Your task to perform on an android device: What's the weather today? Image 0: 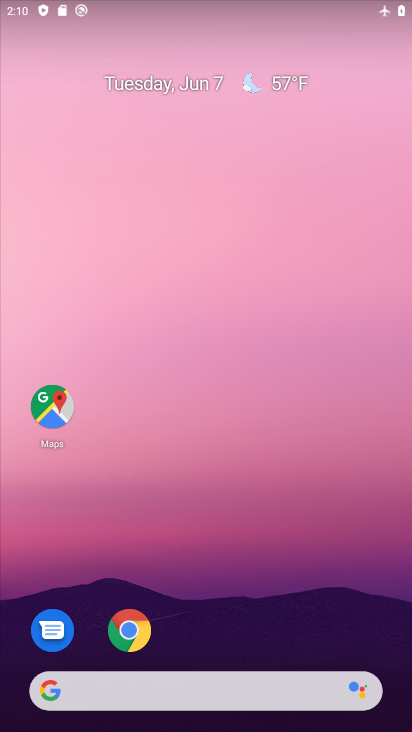
Step 0: click (286, 71)
Your task to perform on an android device: What's the weather today? Image 1: 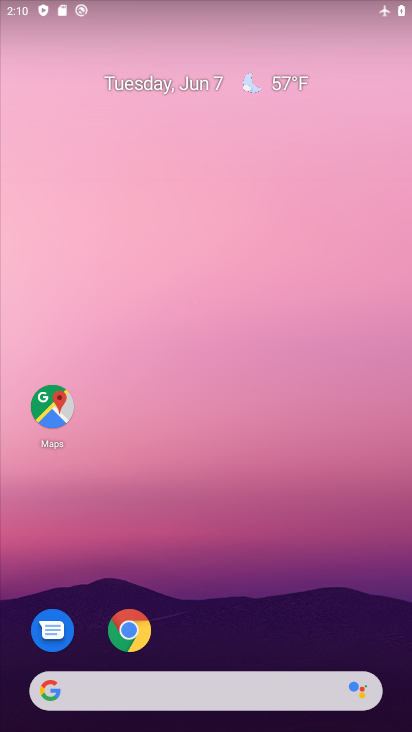
Step 1: click (281, 81)
Your task to perform on an android device: What's the weather today? Image 2: 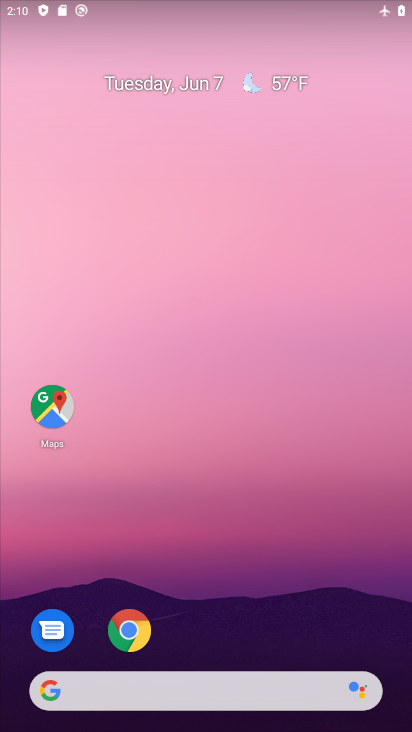
Step 2: click (281, 81)
Your task to perform on an android device: What's the weather today? Image 3: 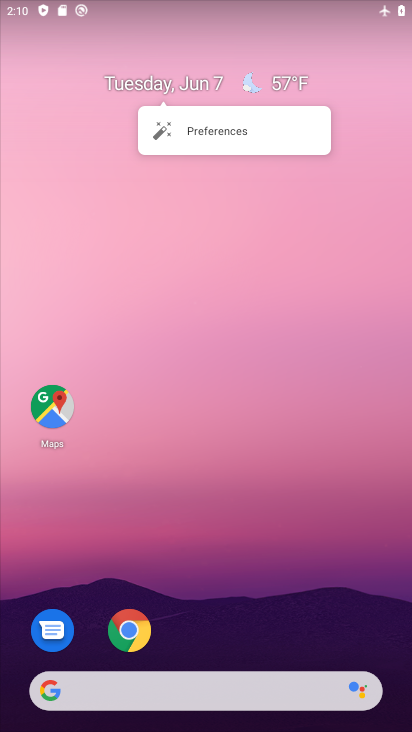
Step 3: click (248, 84)
Your task to perform on an android device: What's the weather today? Image 4: 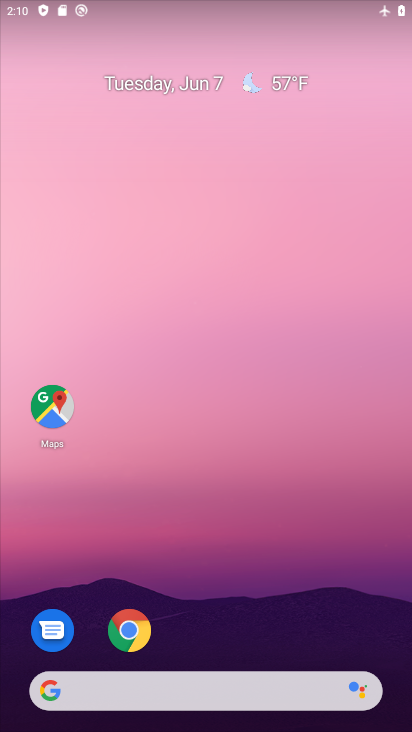
Step 4: click (274, 88)
Your task to perform on an android device: What's the weather today? Image 5: 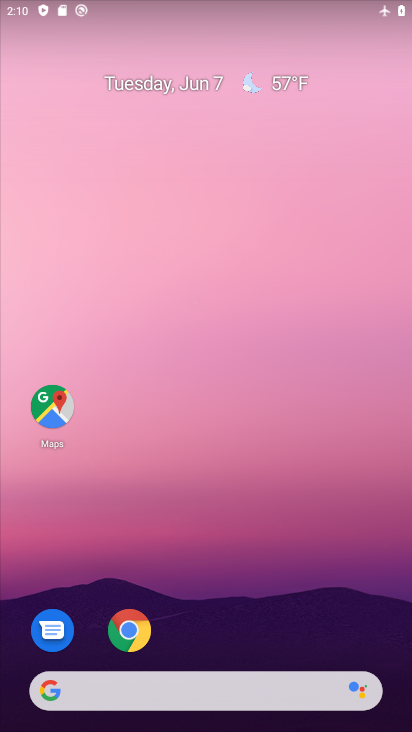
Step 5: click (305, 75)
Your task to perform on an android device: What's the weather today? Image 6: 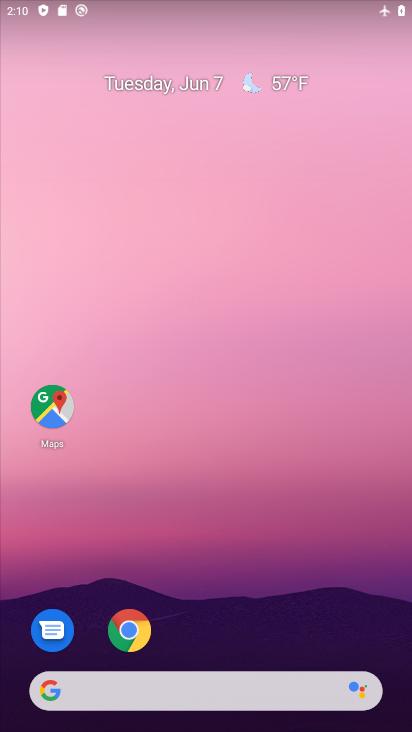
Step 6: click (305, 75)
Your task to perform on an android device: What's the weather today? Image 7: 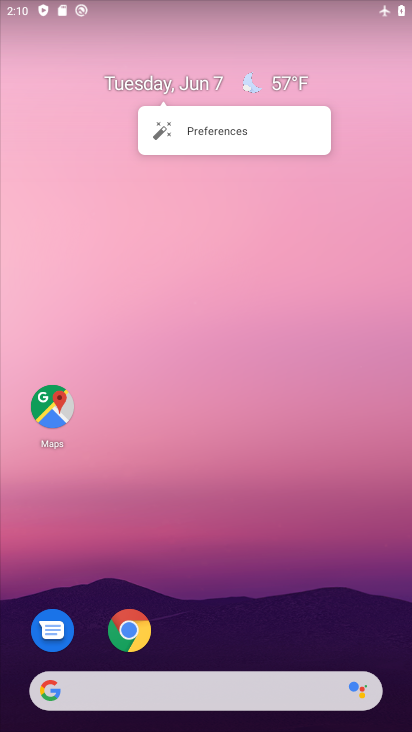
Step 7: drag from (0, 248) to (405, 329)
Your task to perform on an android device: What's the weather today? Image 8: 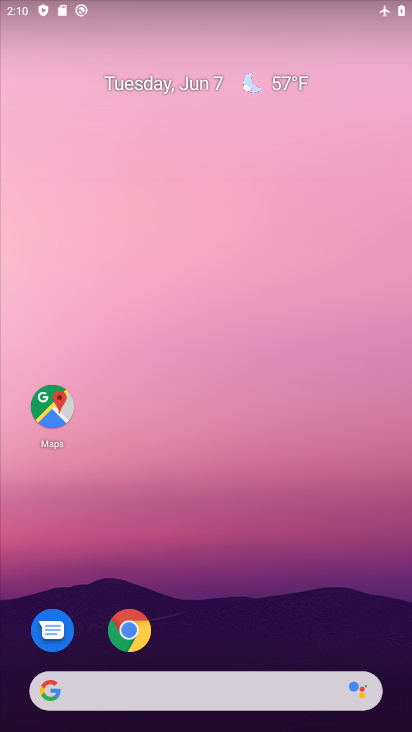
Step 8: drag from (1, 259) to (368, 301)
Your task to perform on an android device: What's the weather today? Image 9: 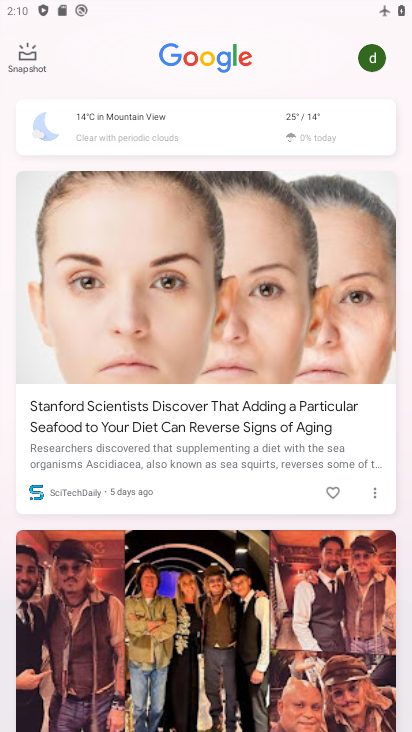
Step 9: click (292, 111)
Your task to perform on an android device: What's the weather today? Image 10: 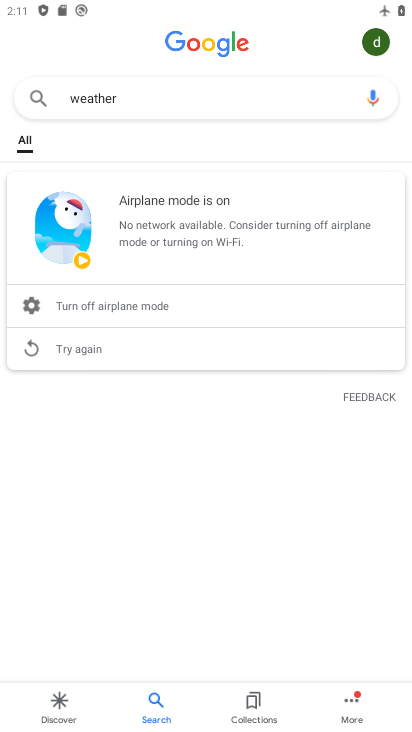
Step 10: click (80, 93)
Your task to perform on an android device: What's the weather today? Image 11: 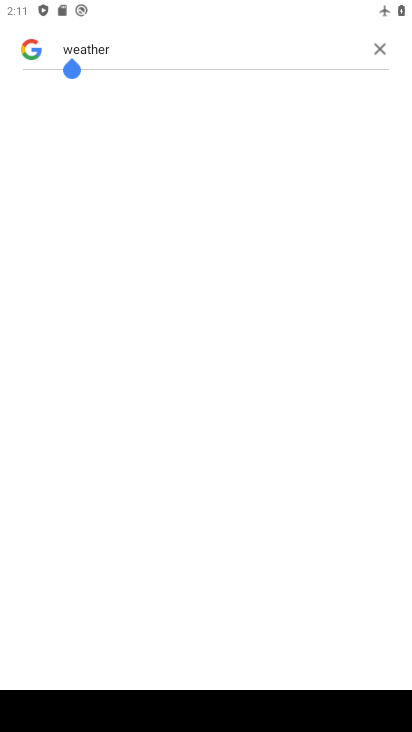
Step 11: task complete